Your task to perform on an android device: turn off notifications settings in the gmail app Image 0: 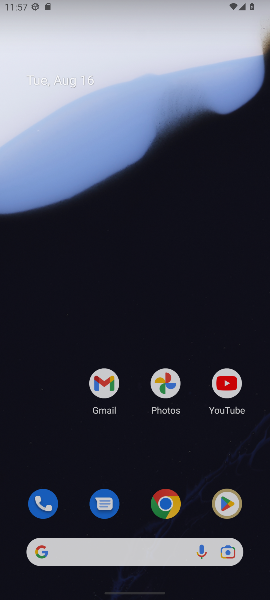
Step 0: press home button
Your task to perform on an android device: turn off notifications settings in the gmail app Image 1: 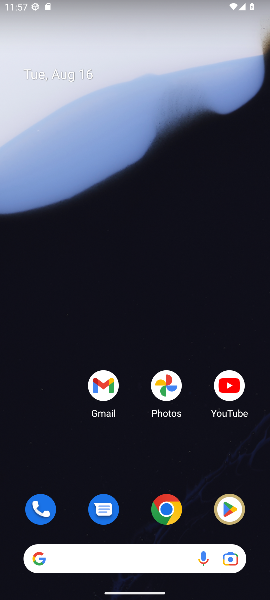
Step 1: click (108, 383)
Your task to perform on an android device: turn off notifications settings in the gmail app Image 2: 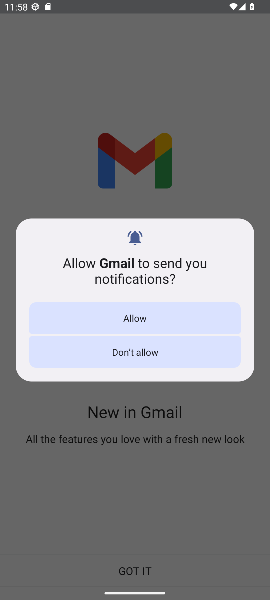
Step 2: click (145, 326)
Your task to perform on an android device: turn off notifications settings in the gmail app Image 3: 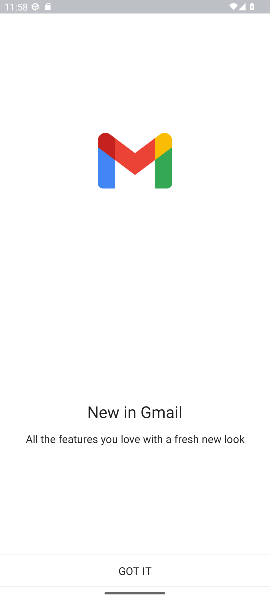
Step 3: click (144, 567)
Your task to perform on an android device: turn off notifications settings in the gmail app Image 4: 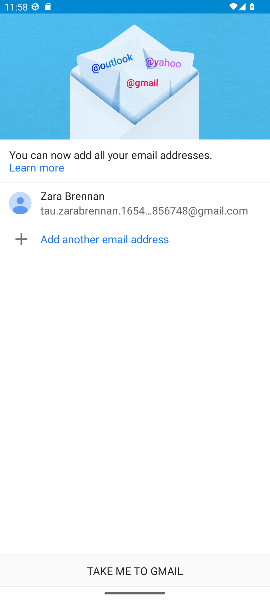
Step 4: click (147, 567)
Your task to perform on an android device: turn off notifications settings in the gmail app Image 5: 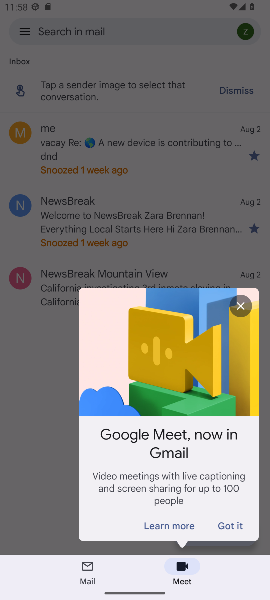
Step 5: click (241, 312)
Your task to perform on an android device: turn off notifications settings in the gmail app Image 6: 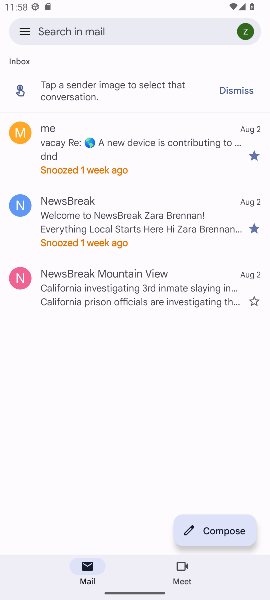
Step 6: click (32, 33)
Your task to perform on an android device: turn off notifications settings in the gmail app Image 7: 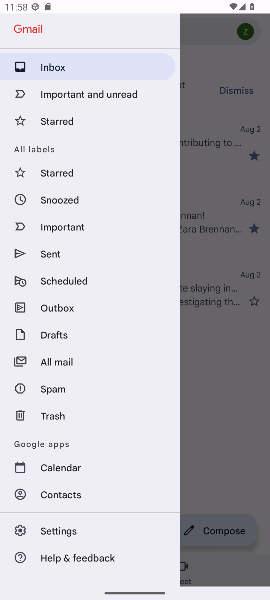
Step 7: click (64, 533)
Your task to perform on an android device: turn off notifications settings in the gmail app Image 8: 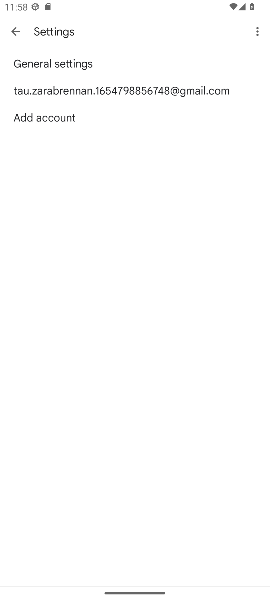
Step 8: click (67, 90)
Your task to perform on an android device: turn off notifications settings in the gmail app Image 9: 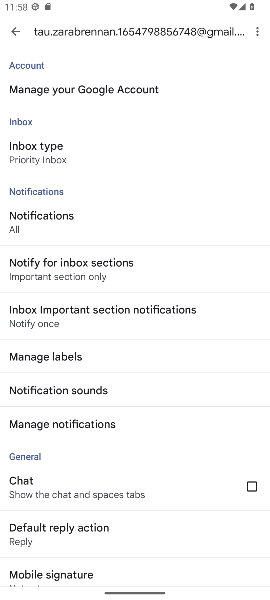
Step 9: click (85, 431)
Your task to perform on an android device: turn off notifications settings in the gmail app Image 10: 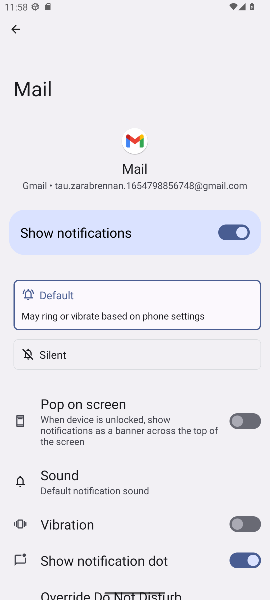
Step 10: click (245, 224)
Your task to perform on an android device: turn off notifications settings in the gmail app Image 11: 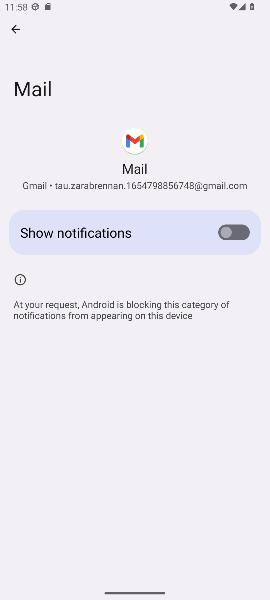
Step 11: task complete